Your task to perform on an android device: Go to eBay Image 0: 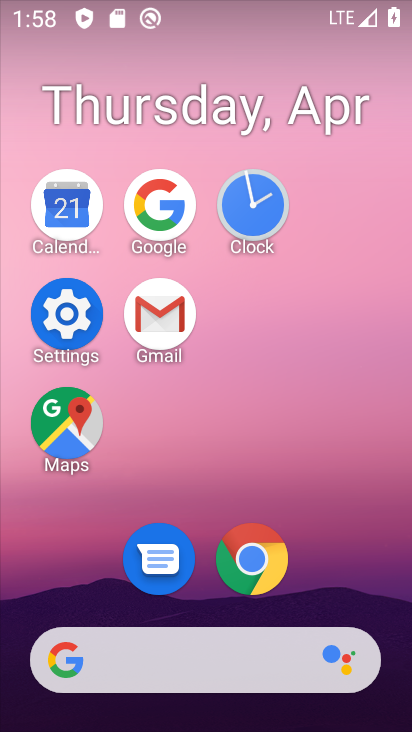
Step 0: click (259, 554)
Your task to perform on an android device: Go to eBay Image 1: 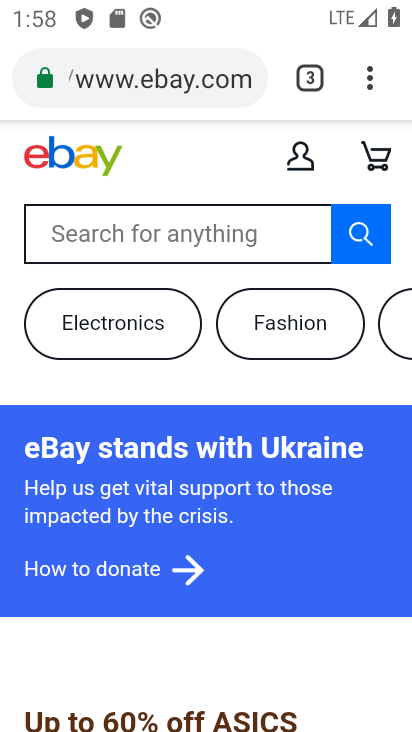
Step 1: task complete